Your task to perform on an android device: Open calendar and show me the second week of next month Image 0: 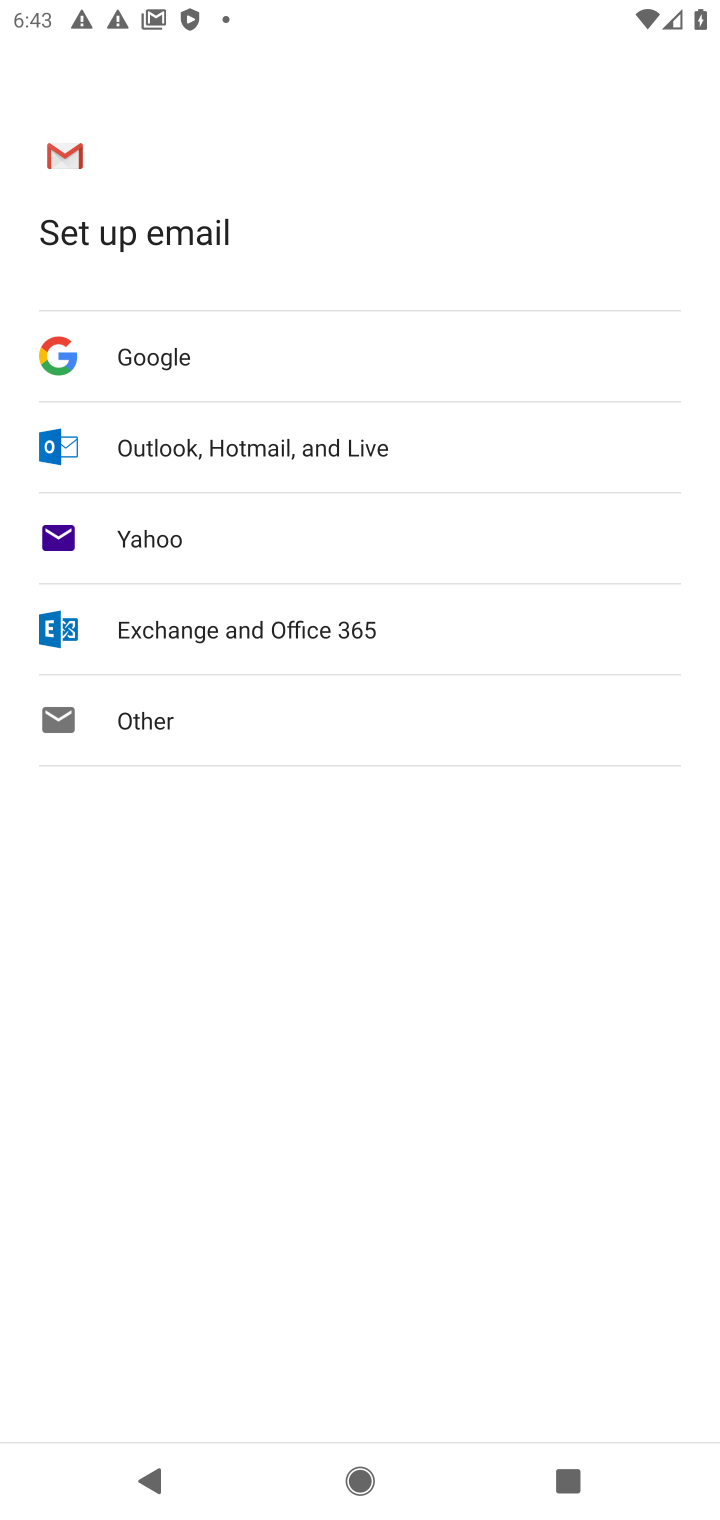
Step 0: press home button
Your task to perform on an android device: Open calendar and show me the second week of next month Image 1: 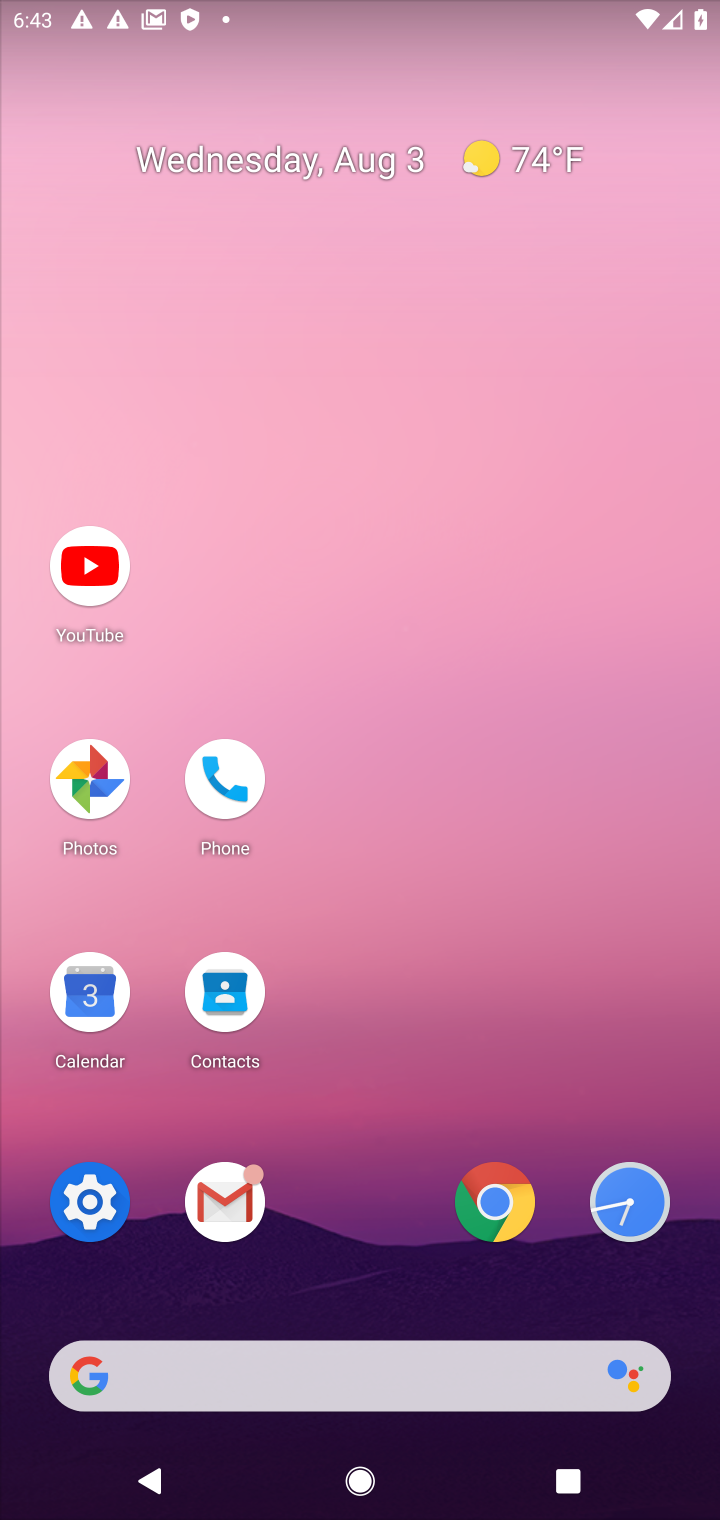
Step 1: click (73, 990)
Your task to perform on an android device: Open calendar and show me the second week of next month Image 2: 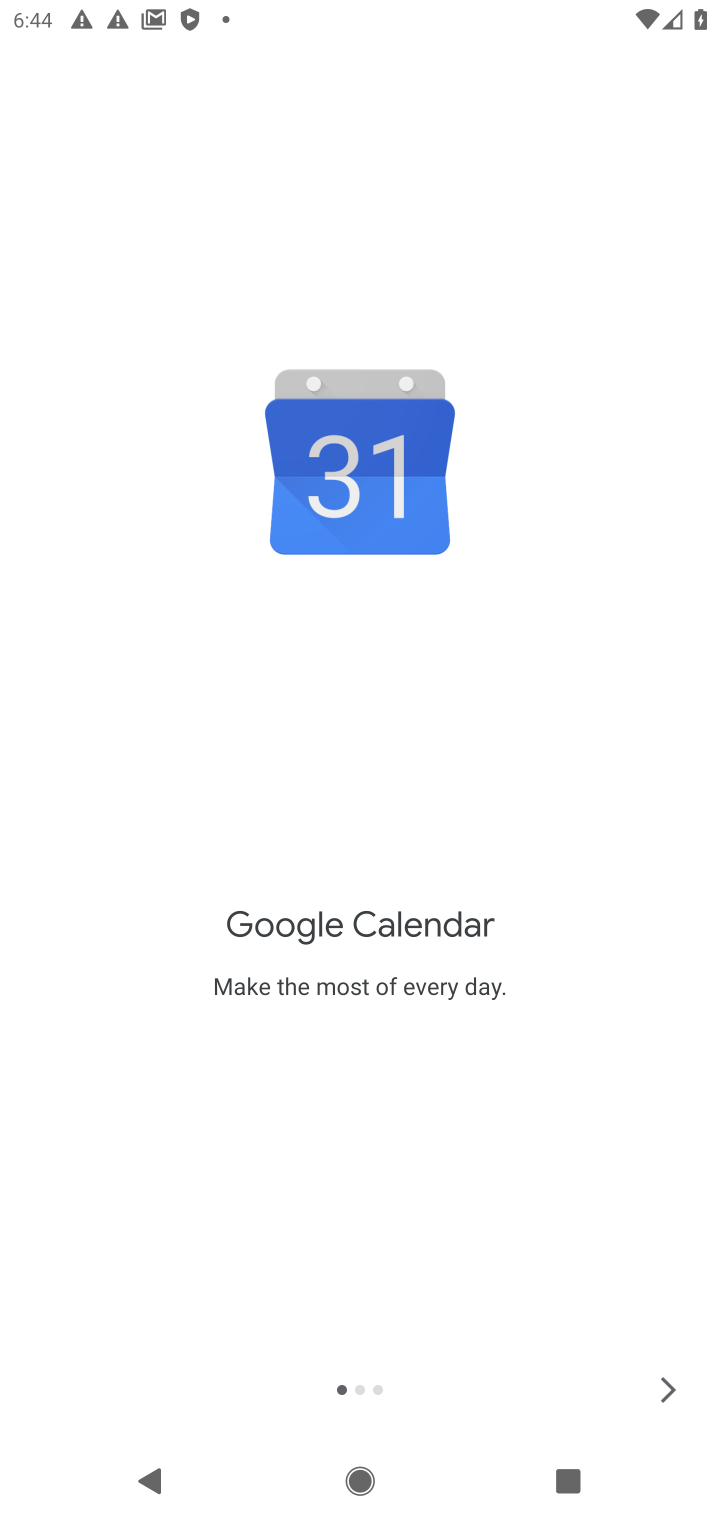
Step 2: click (662, 1395)
Your task to perform on an android device: Open calendar and show me the second week of next month Image 3: 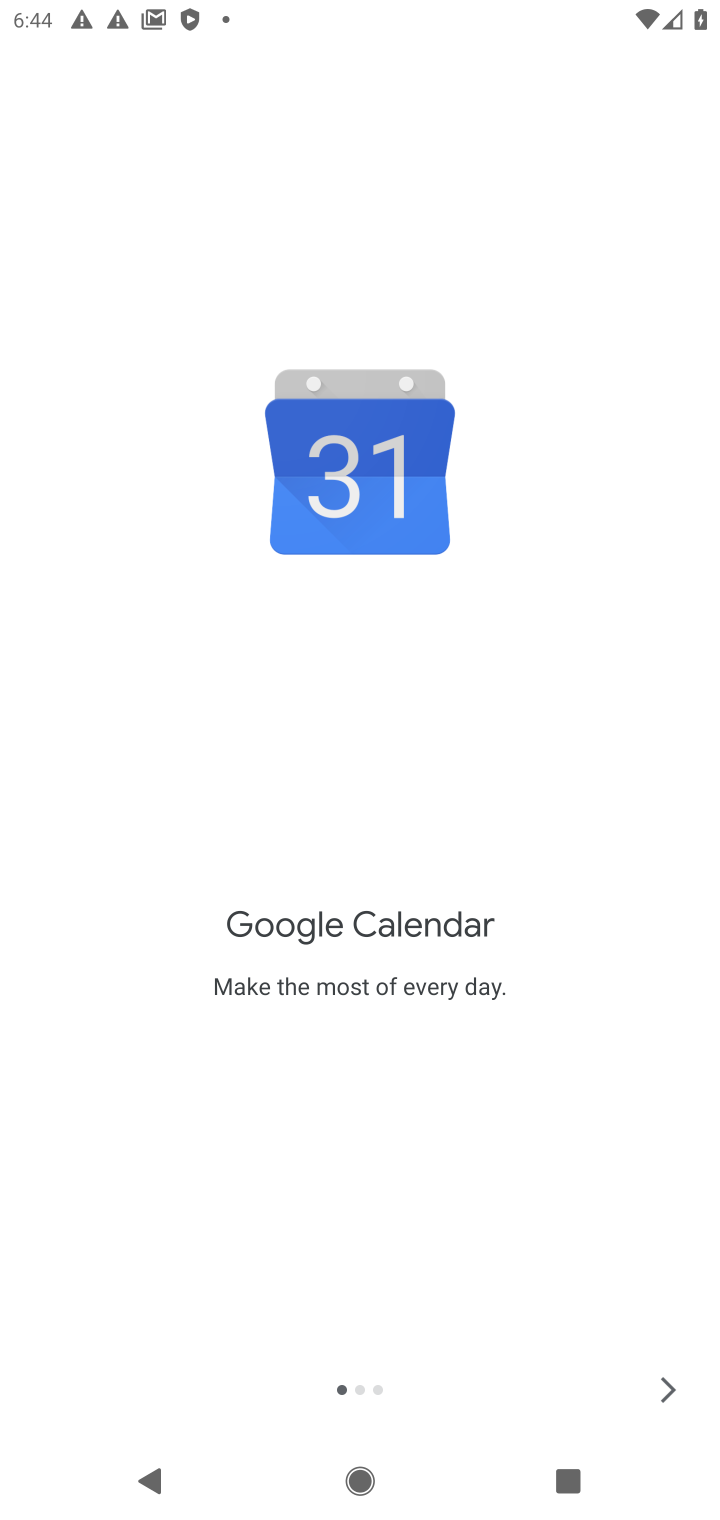
Step 3: click (662, 1395)
Your task to perform on an android device: Open calendar and show me the second week of next month Image 4: 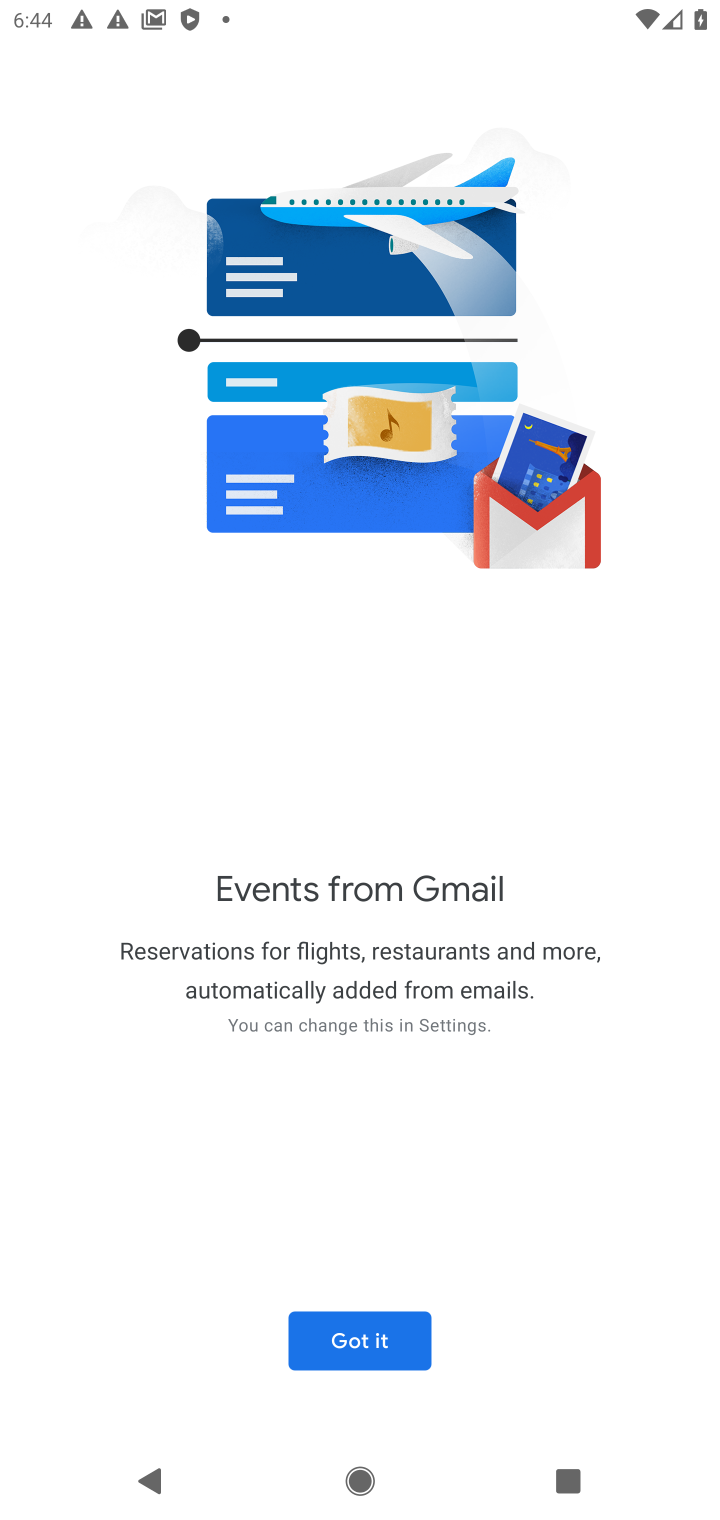
Step 4: click (662, 1395)
Your task to perform on an android device: Open calendar and show me the second week of next month Image 5: 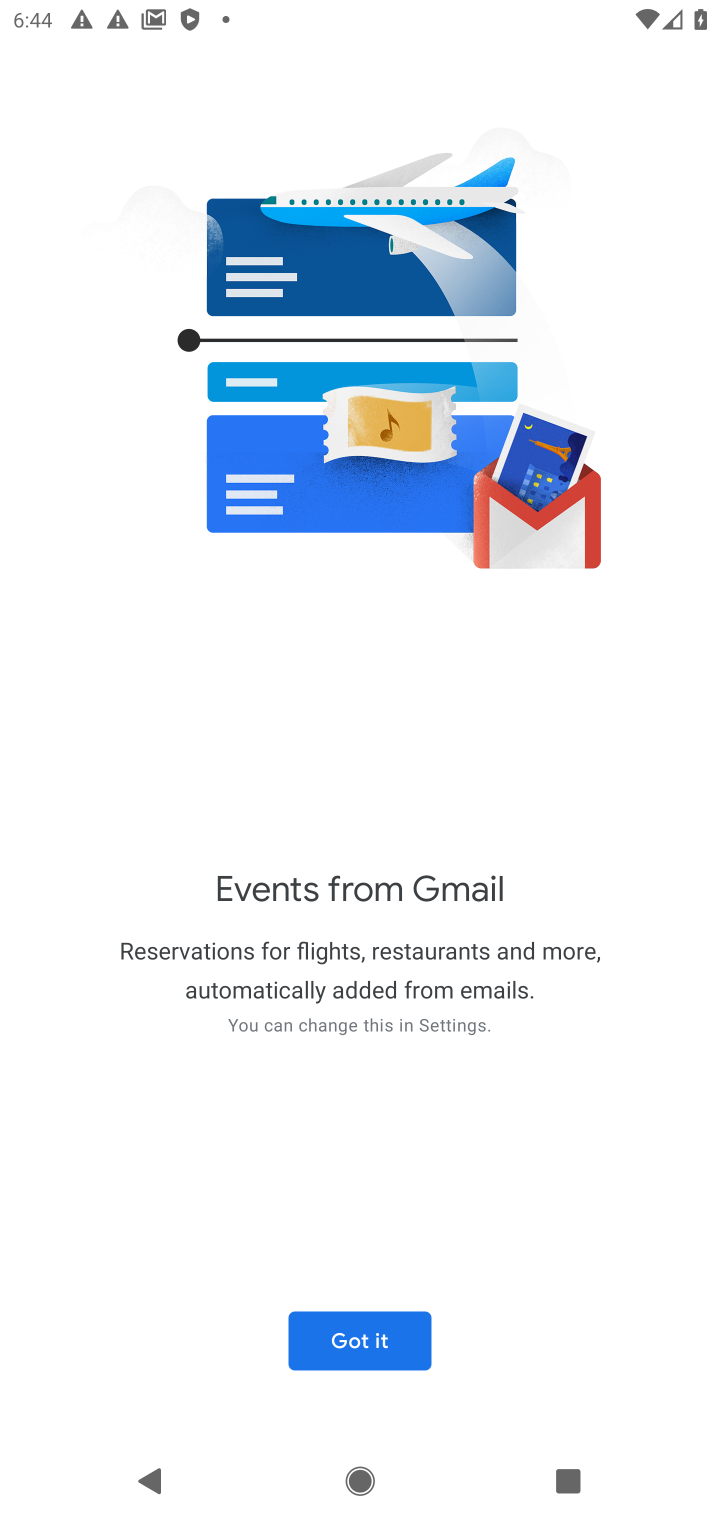
Step 5: click (367, 1326)
Your task to perform on an android device: Open calendar and show me the second week of next month Image 6: 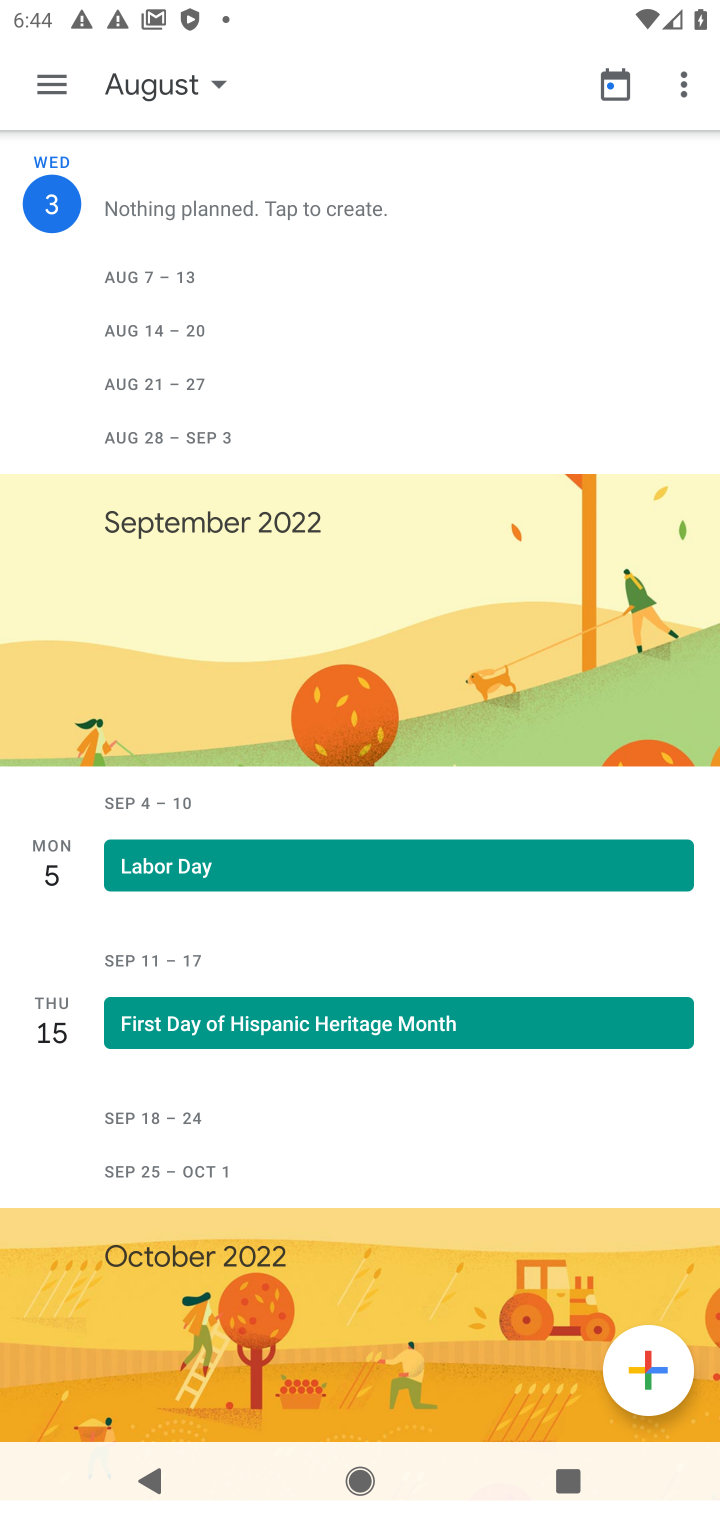
Step 6: click (48, 80)
Your task to perform on an android device: Open calendar and show me the second week of next month Image 7: 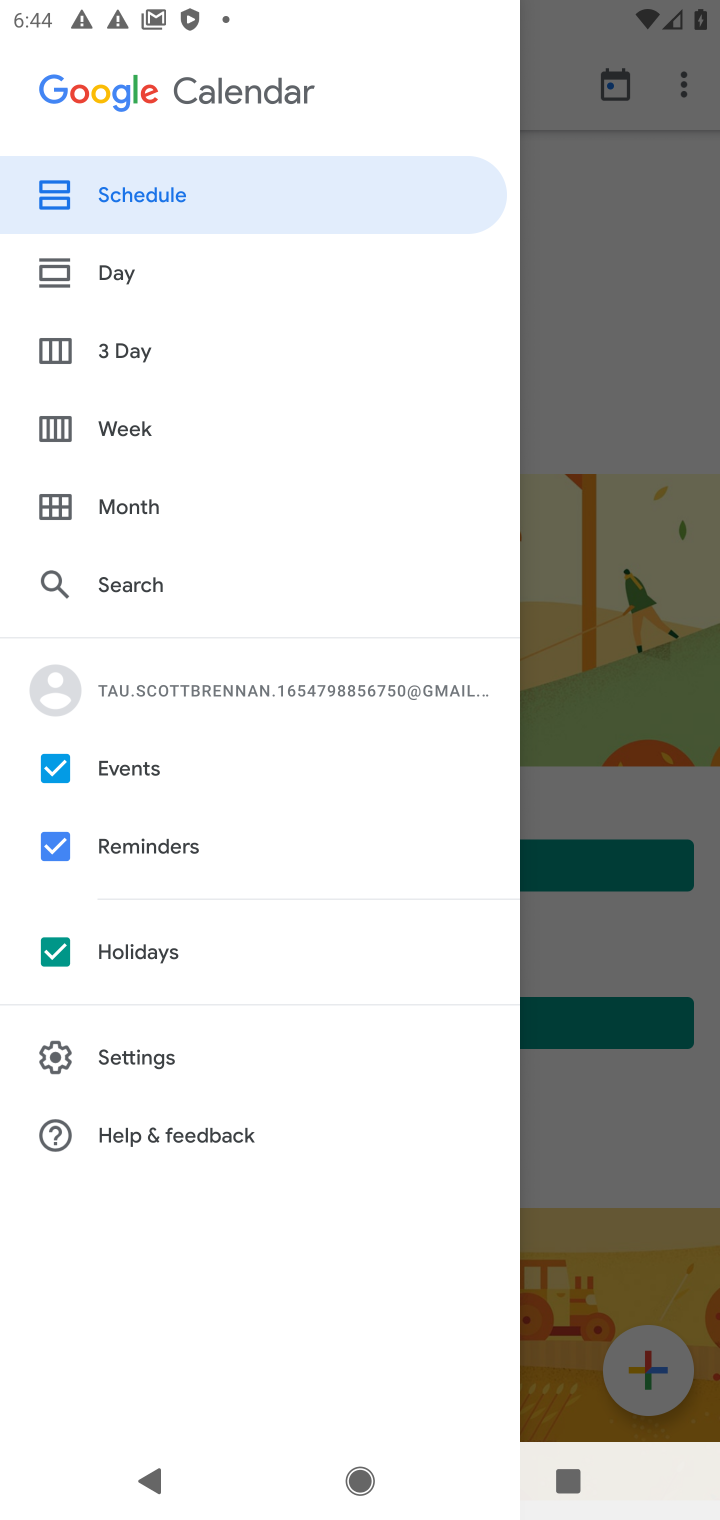
Step 7: click (117, 424)
Your task to perform on an android device: Open calendar and show me the second week of next month Image 8: 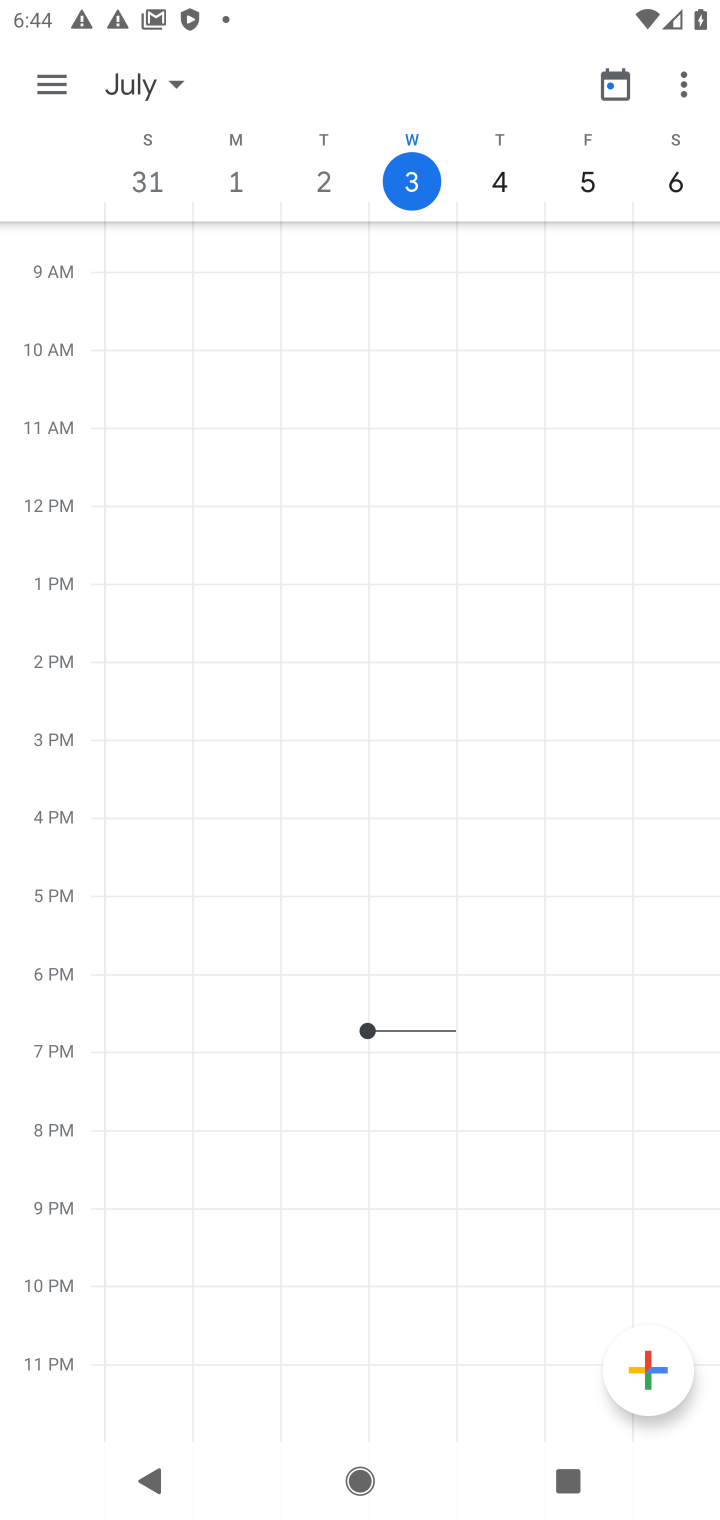
Step 8: click (170, 83)
Your task to perform on an android device: Open calendar and show me the second week of next month Image 9: 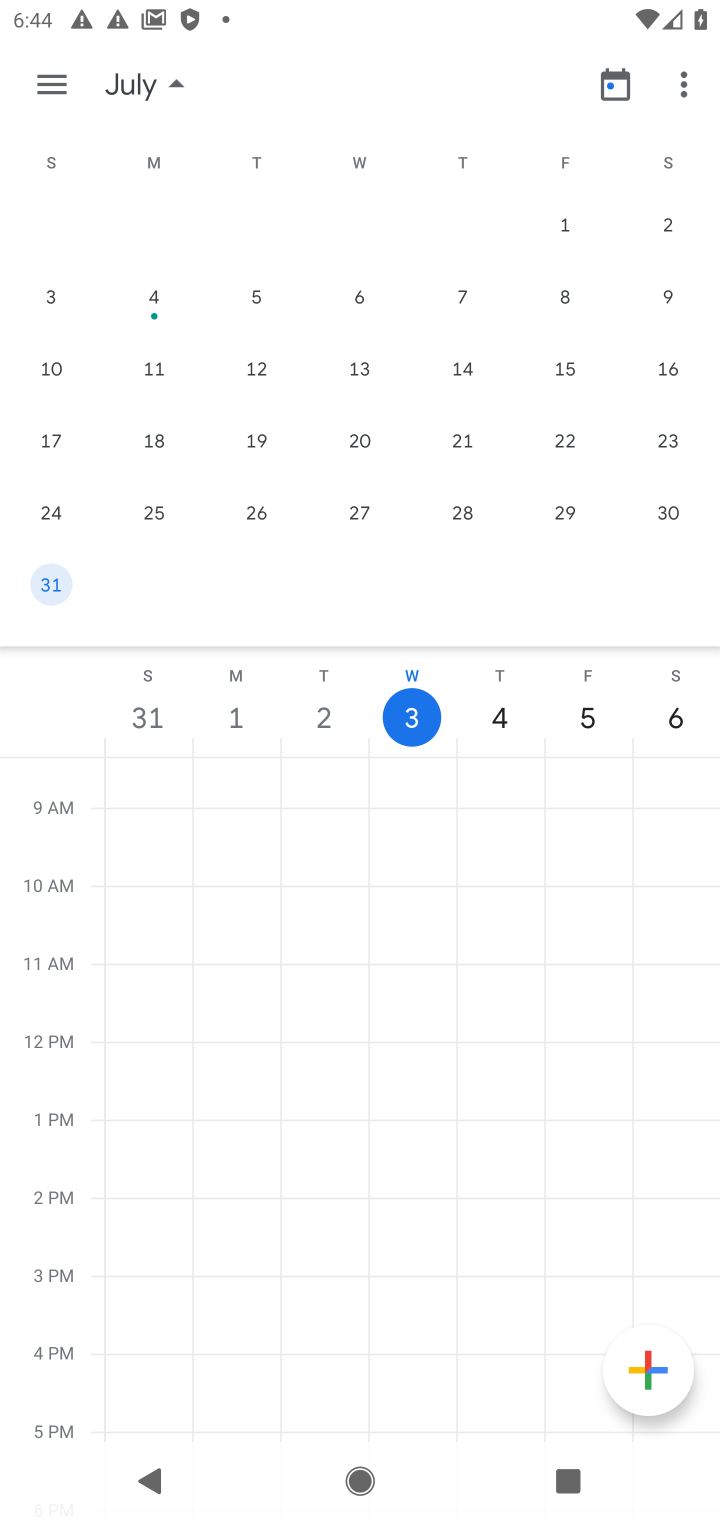
Step 9: drag from (660, 408) to (3, 321)
Your task to perform on an android device: Open calendar and show me the second week of next month Image 10: 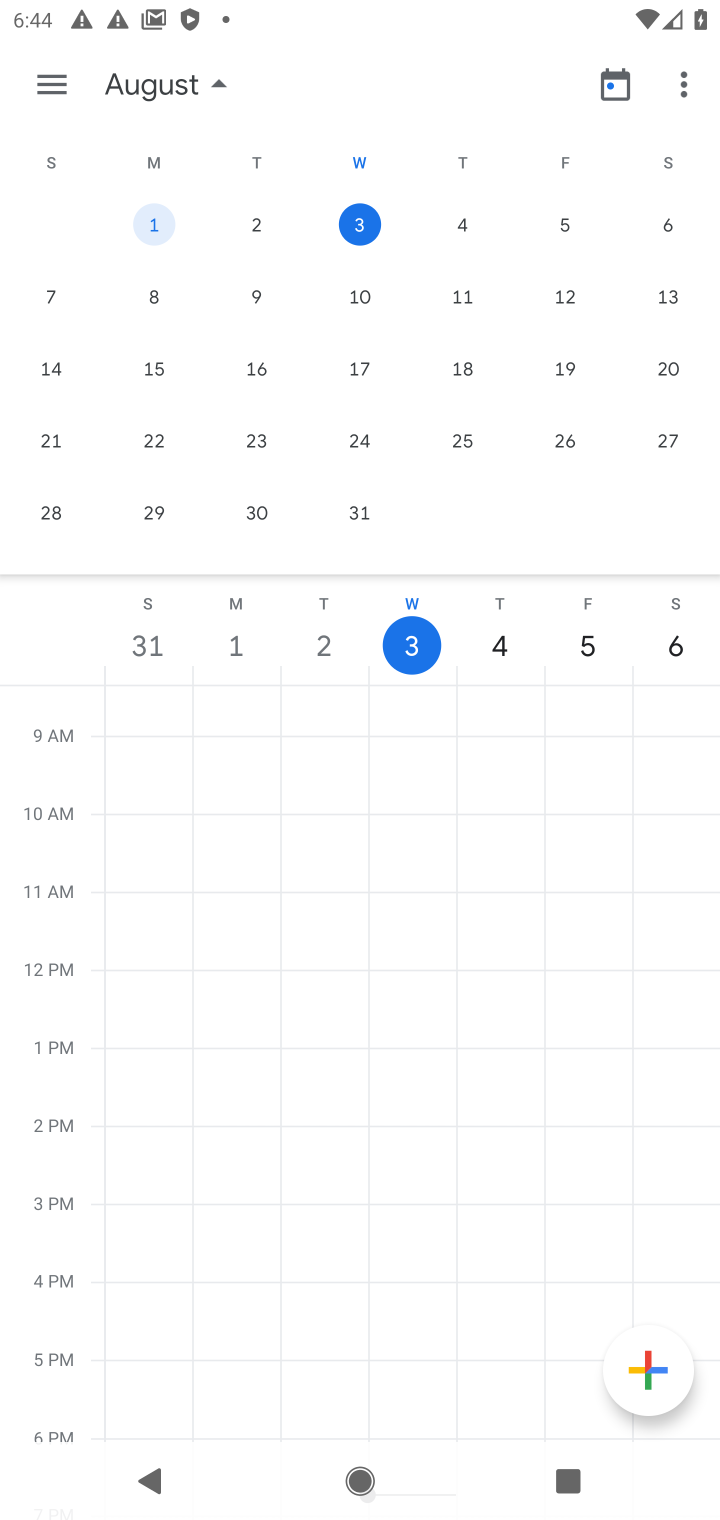
Step 10: drag from (649, 392) to (68, 363)
Your task to perform on an android device: Open calendar and show me the second week of next month Image 11: 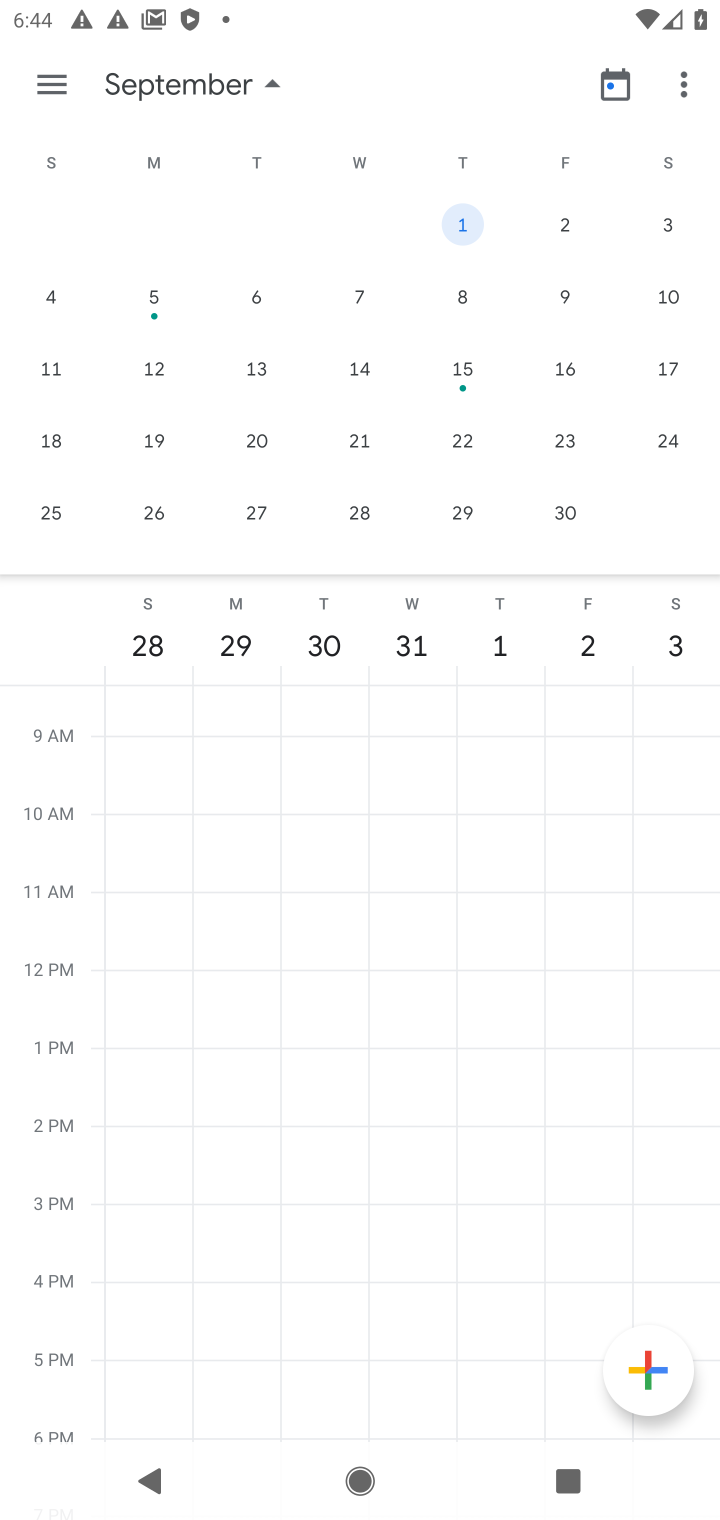
Step 11: click (354, 294)
Your task to perform on an android device: Open calendar and show me the second week of next month Image 12: 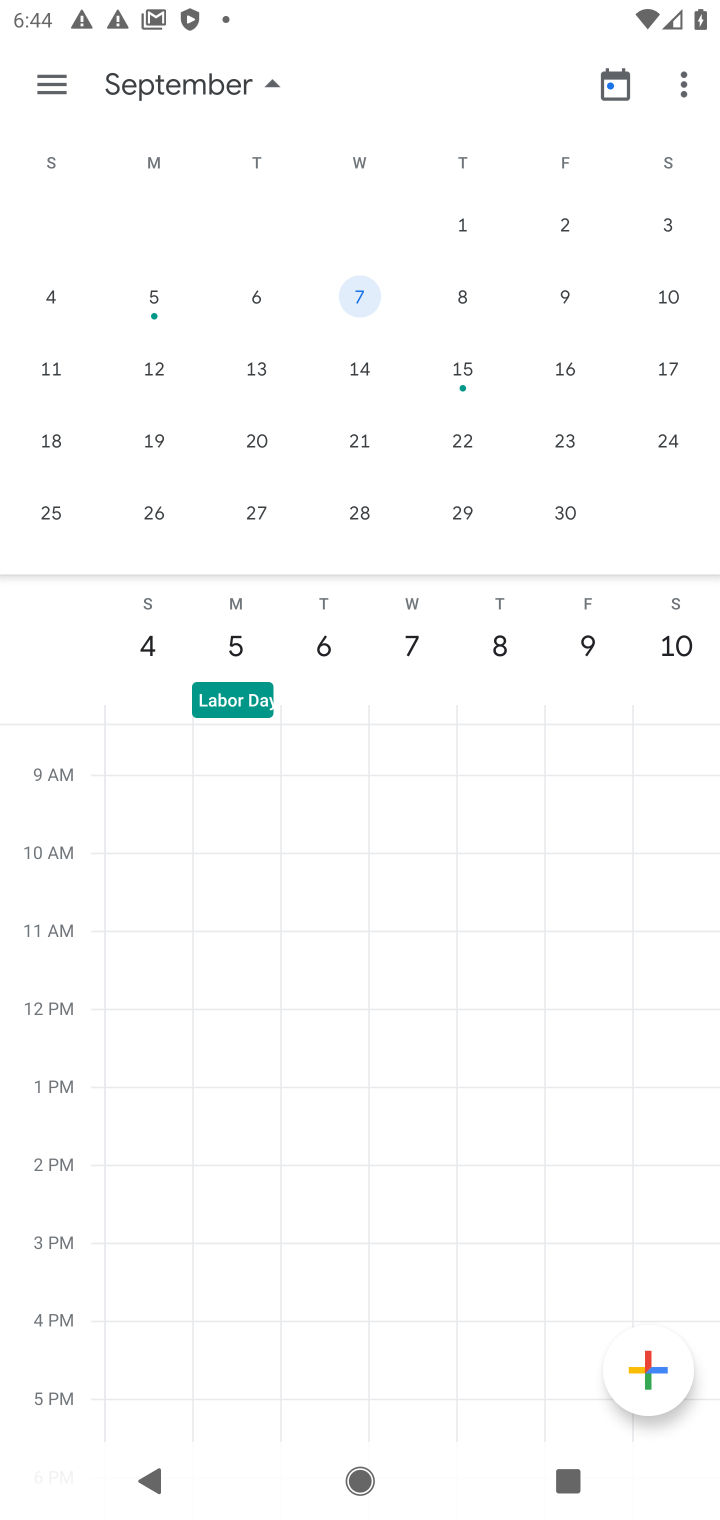
Step 12: task complete